Your task to perform on an android device: refresh tabs in the chrome app Image 0: 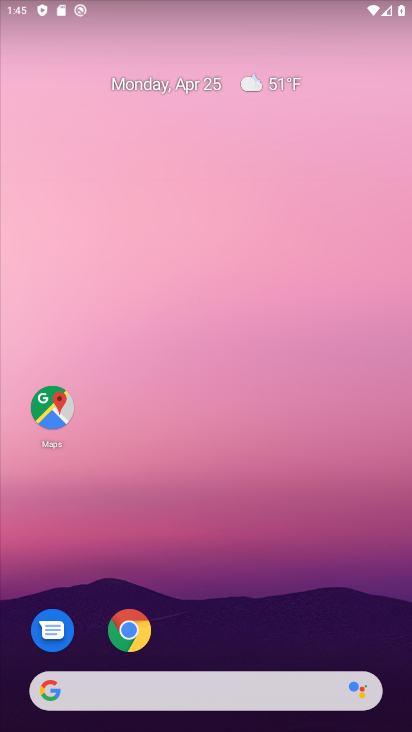
Step 0: drag from (280, 591) to (257, 206)
Your task to perform on an android device: refresh tabs in the chrome app Image 1: 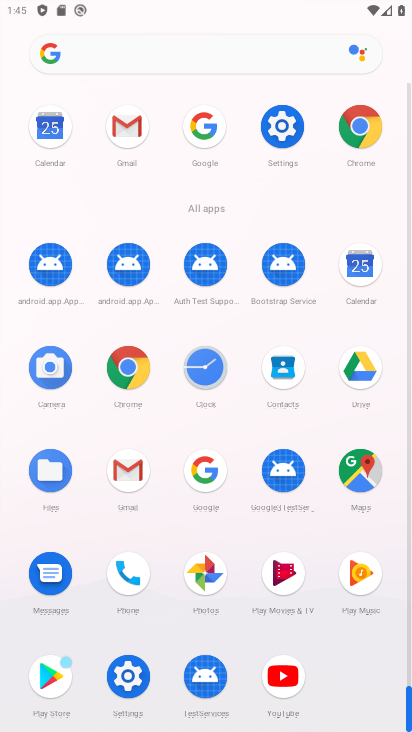
Step 1: click (372, 121)
Your task to perform on an android device: refresh tabs in the chrome app Image 2: 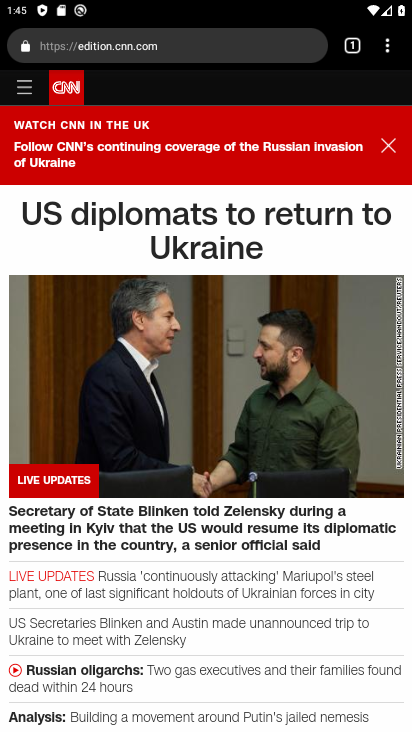
Step 2: click (387, 43)
Your task to perform on an android device: refresh tabs in the chrome app Image 3: 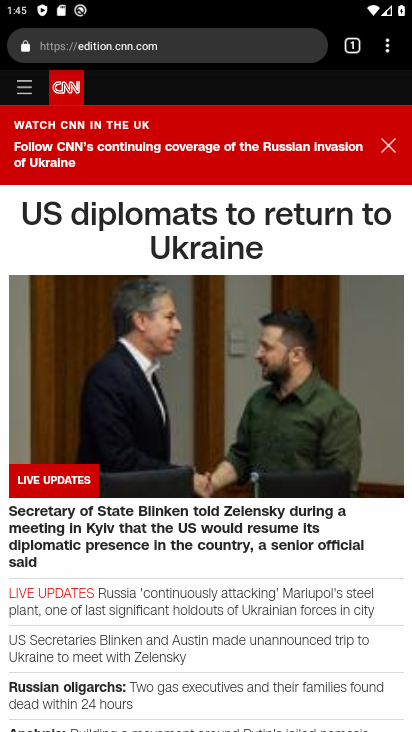
Step 3: task complete